Your task to perform on an android device: Open Maps and search for coffee Image 0: 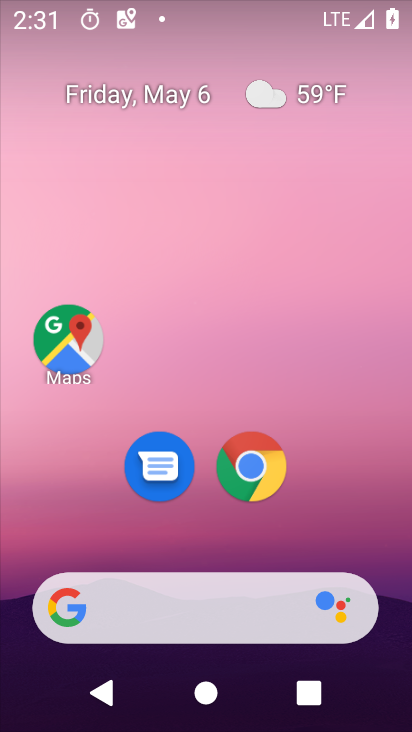
Step 0: click (60, 340)
Your task to perform on an android device: Open Maps and search for coffee Image 1: 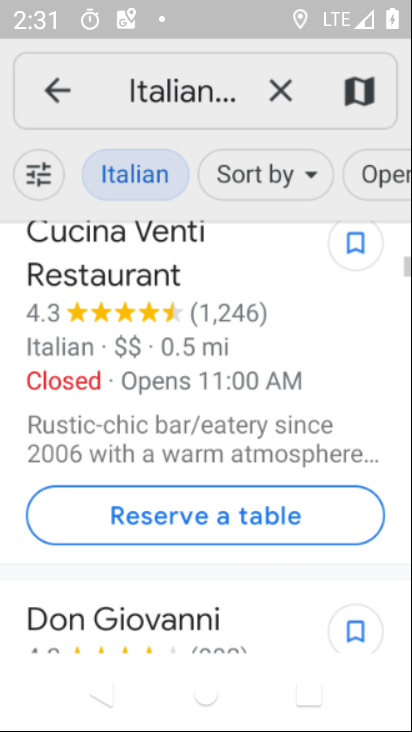
Step 1: click (219, 92)
Your task to perform on an android device: Open Maps and search for coffee Image 2: 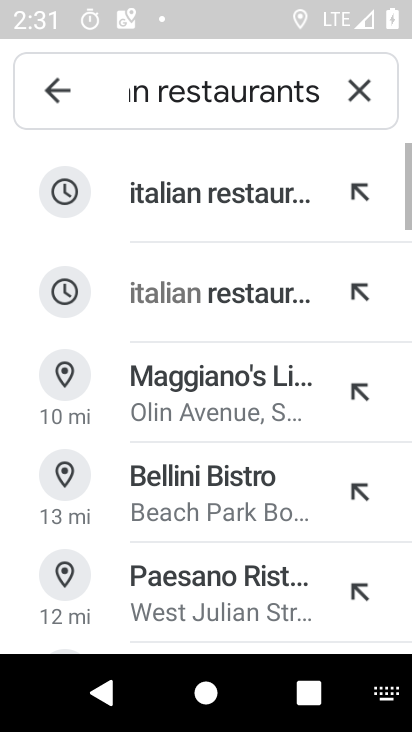
Step 2: click (364, 79)
Your task to perform on an android device: Open Maps and search for coffee Image 3: 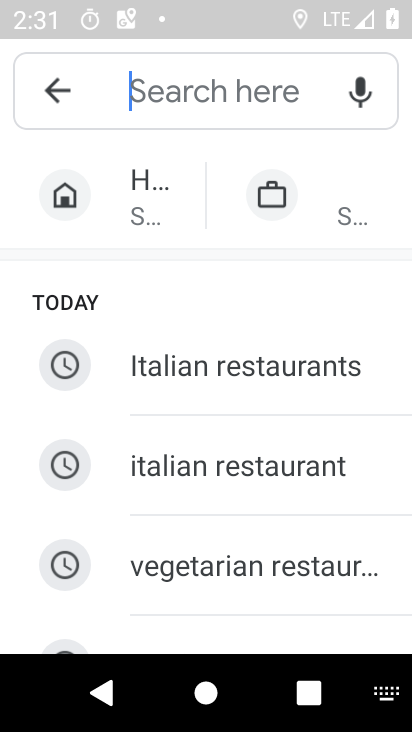
Step 3: type "coffee"
Your task to perform on an android device: Open Maps and search for coffee Image 4: 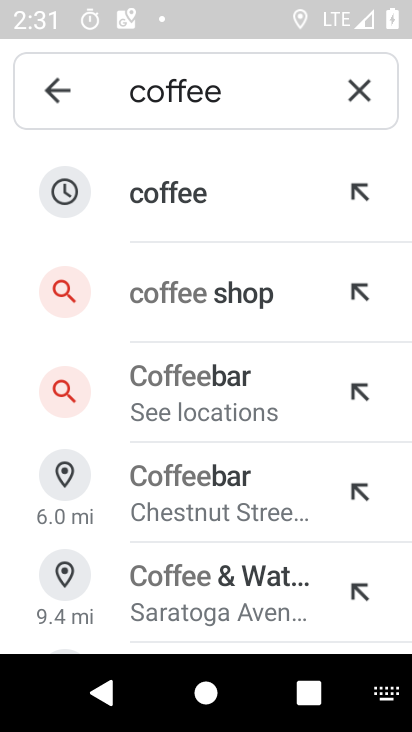
Step 4: click (166, 195)
Your task to perform on an android device: Open Maps and search for coffee Image 5: 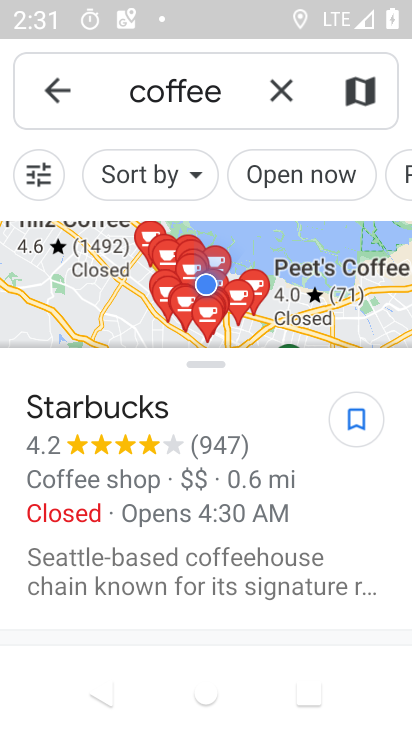
Step 5: task complete